Your task to perform on an android device: Go to Maps Image 0: 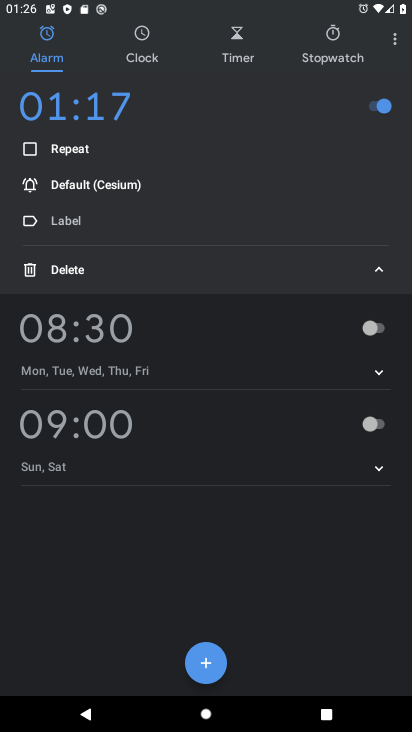
Step 0: press home button
Your task to perform on an android device: Go to Maps Image 1: 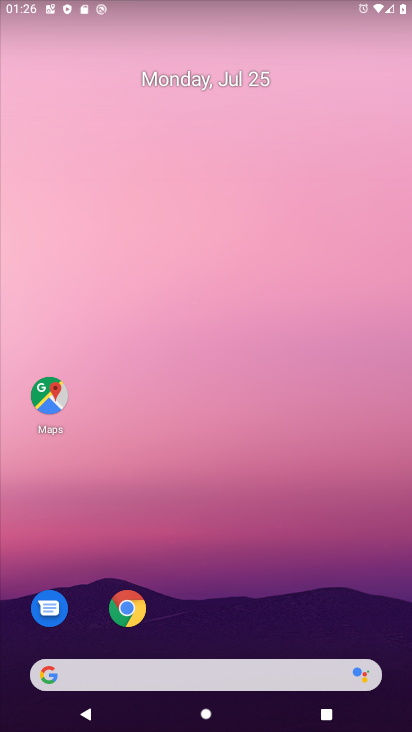
Step 1: click (62, 395)
Your task to perform on an android device: Go to Maps Image 2: 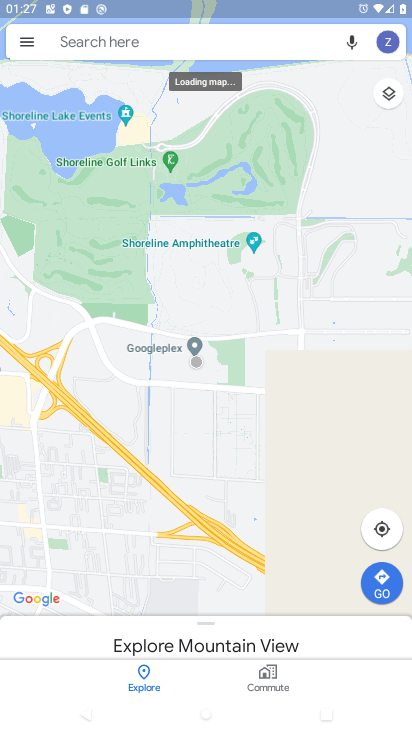
Step 2: task complete